Your task to perform on an android device: Open Google Chrome Image 0: 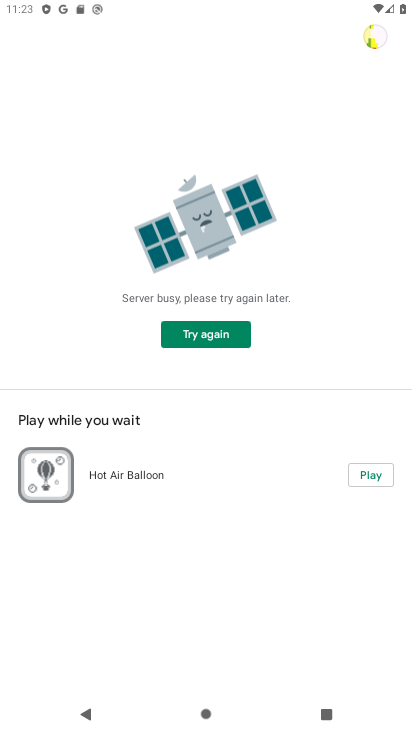
Step 0: press home button
Your task to perform on an android device: Open Google Chrome Image 1: 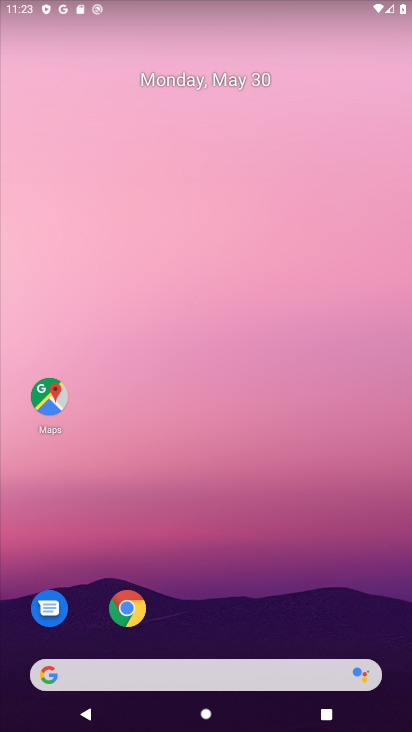
Step 1: click (126, 608)
Your task to perform on an android device: Open Google Chrome Image 2: 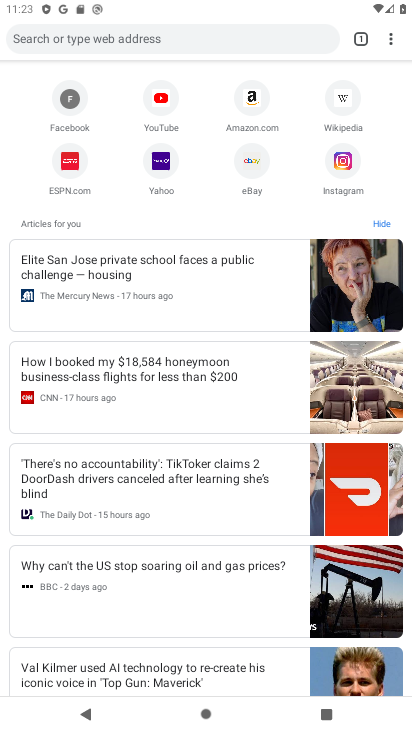
Step 2: task complete